Your task to perform on an android device: turn on the 24-hour format for clock Image 0: 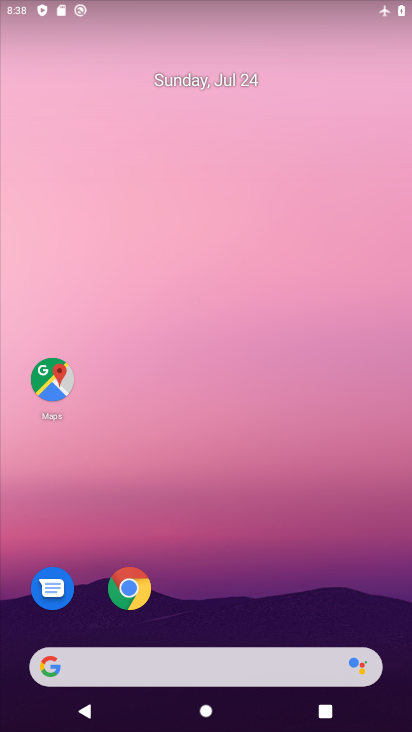
Step 0: drag from (250, 588) to (222, 140)
Your task to perform on an android device: turn on the 24-hour format for clock Image 1: 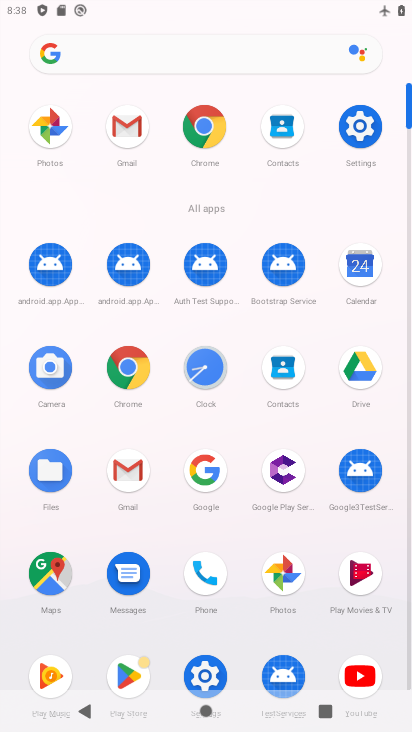
Step 1: click (206, 360)
Your task to perform on an android device: turn on the 24-hour format for clock Image 2: 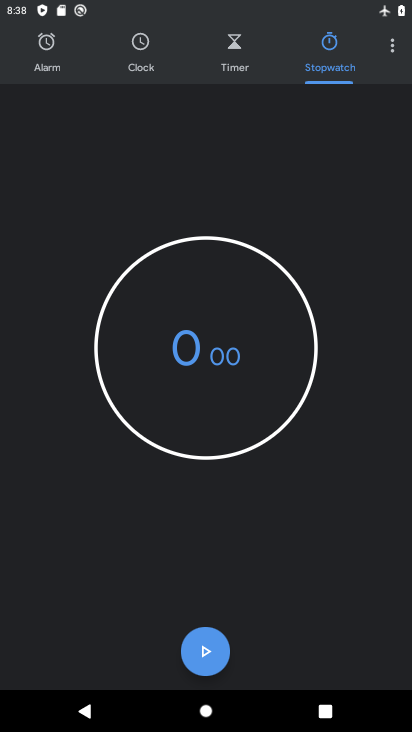
Step 2: click (394, 36)
Your task to perform on an android device: turn on the 24-hour format for clock Image 3: 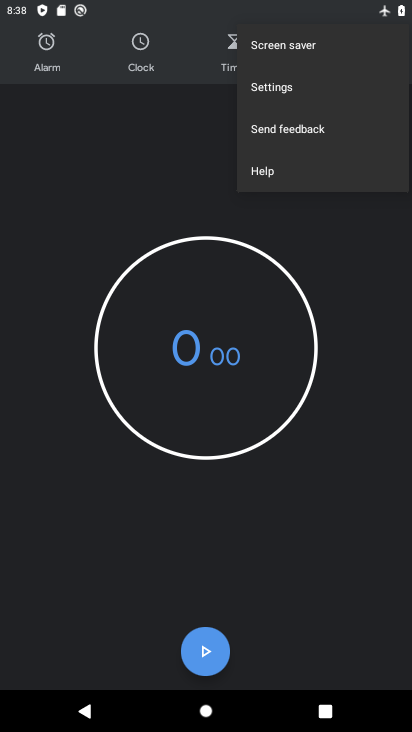
Step 3: click (276, 94)
Your task to perform on an android device: turn on the 24-hour format for clock Image 4: 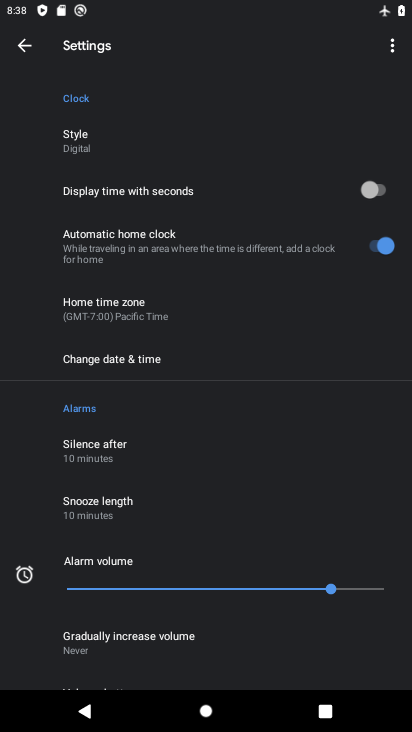
Step 4: click (151, 369)
Your task to perform on an android device: turn on the 24-hour format for clock Image 5: 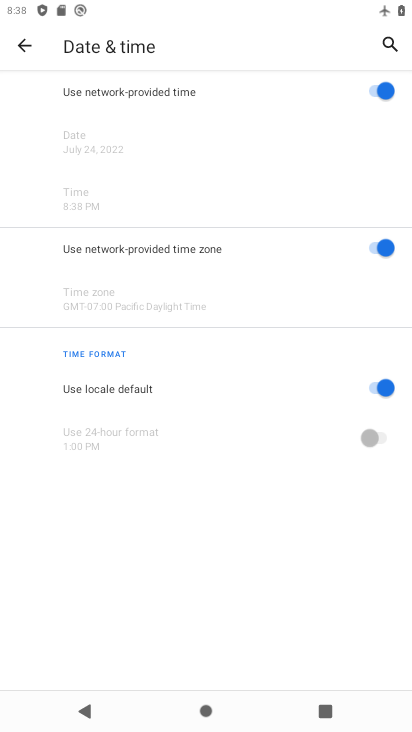
Step 5: click (378, 382)
Your task to perform on an android device: turn on the 24-hour format for clock Image 6: 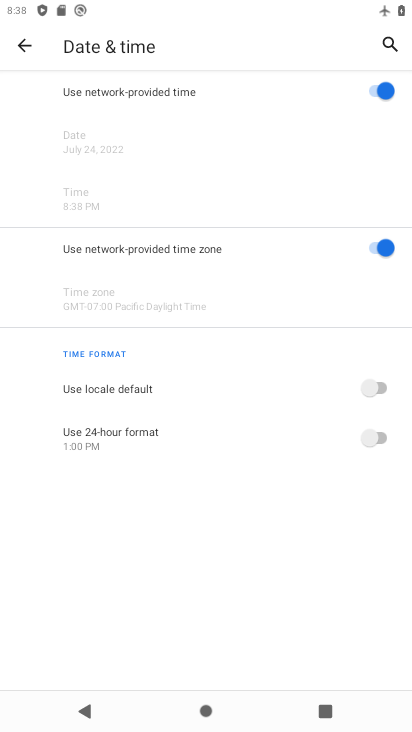
Step 6: click (378, 429)
Your task to perform on an android device: turn on the 24-hour format for clock Image 7: 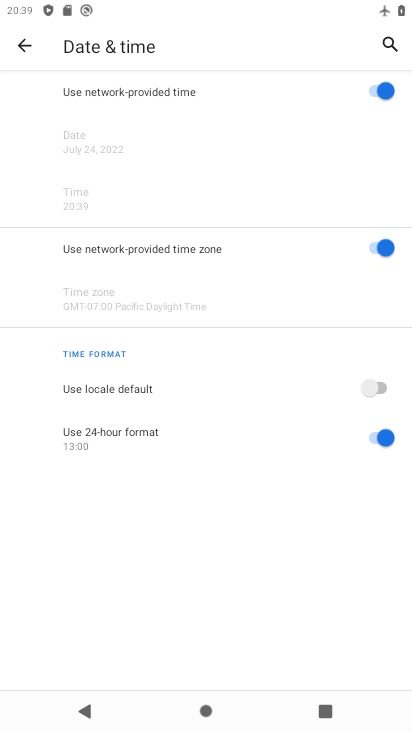
Step 7: task complete